Your task to perform on an android device: check android version Image 0: 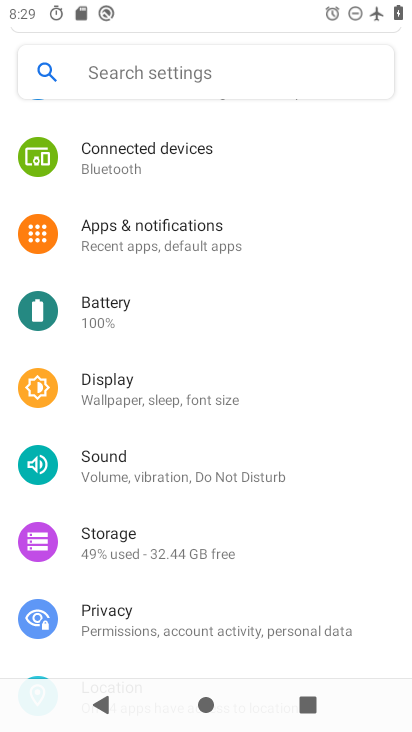
Step 0: press home button
Your task to perform on an android device: check android version Image 1: 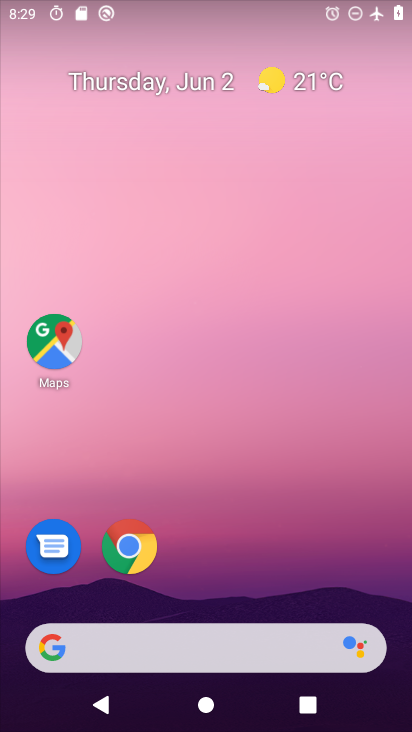
Step 1: drag from (300, 582) to (322, 213)
Your task to perform on an android device: check android version Image 2: 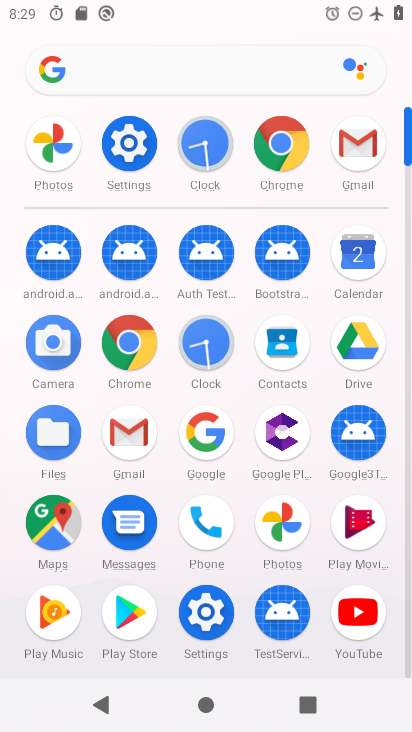
Step 2: click (206, 620)
Your task to perform on an android device: check android version Image 3: 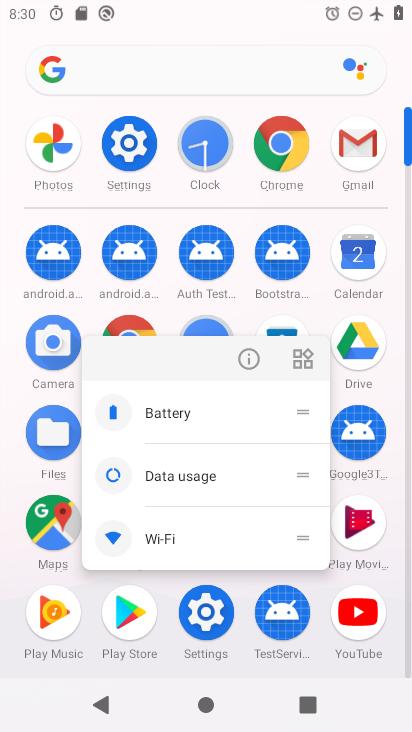
Step 3: click (207, 616)
Your task to perform on an android device: check android version Image 4: 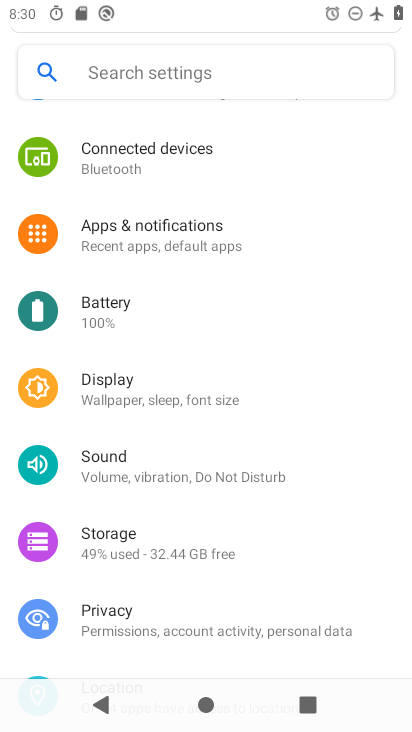
Step 4: drag from (273, 565) to (373, 254)
Your task to perform on an android device: check android version Image 5: 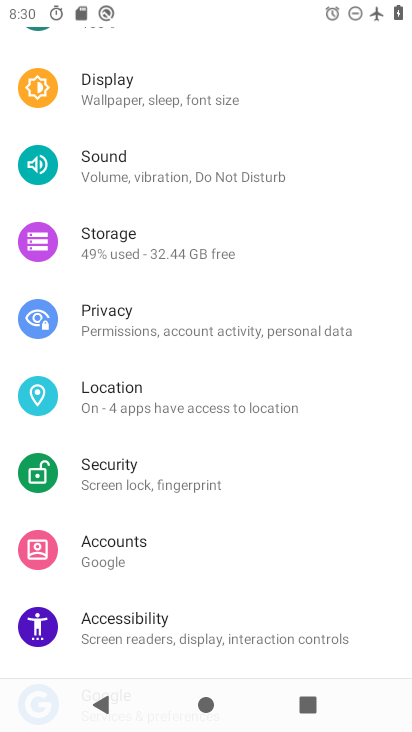
Step 5: drag from (331, 558) to (324, 235)
Your task to perform on an android device: check android version Image 6: 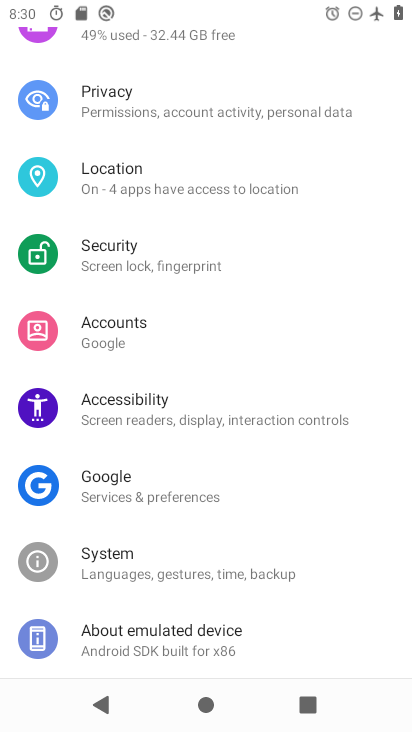
Step 6: drag from (278, 609) to (303, 319)
Your task to perform on an android device: check android version Image 7: 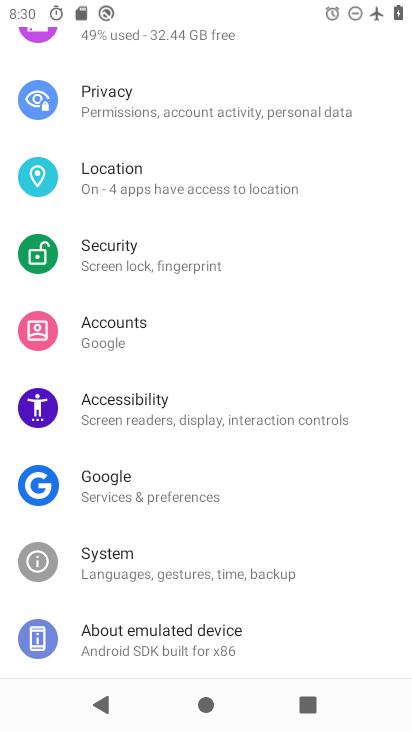
Step 7: click (194, 629)
Your task to perform on an android device: check android version Image 8: 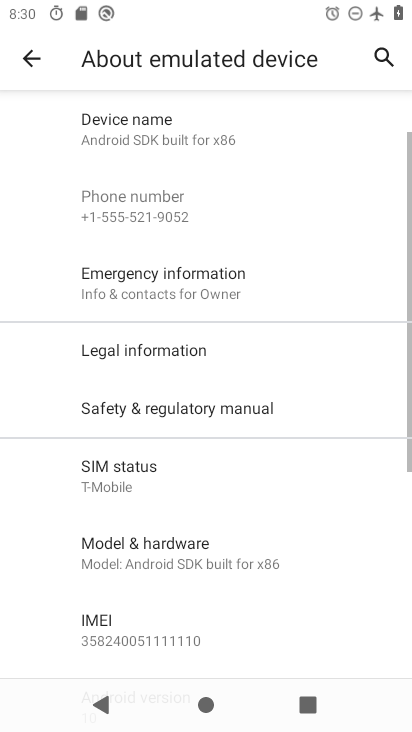
Step 8: drag from (191, 608) to (289, 255)
Your task to perform on an android device: check android version Image 9: 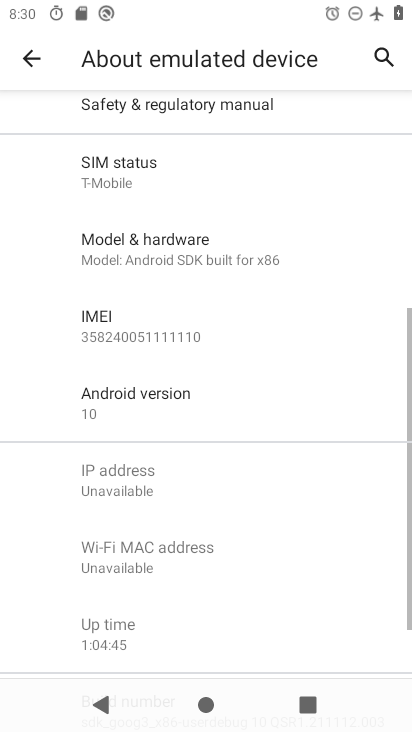
Step 9: drag from (234, 611) to (306, 430)
Your task to perform on an android device: check android version Image 10: 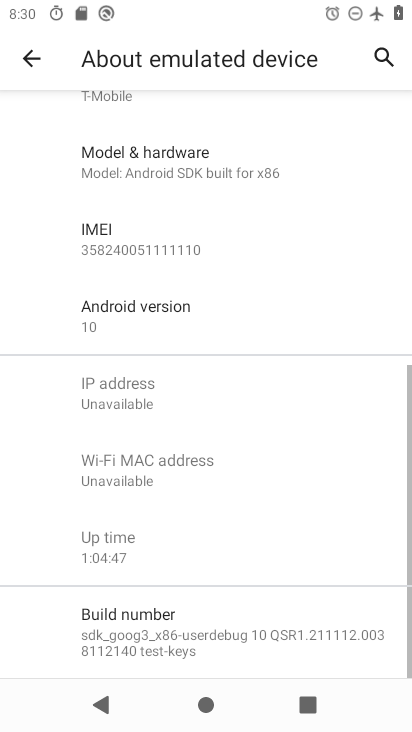
Step 10: click (219, 305)
Your task to perform on an android device: check android version Image 11: 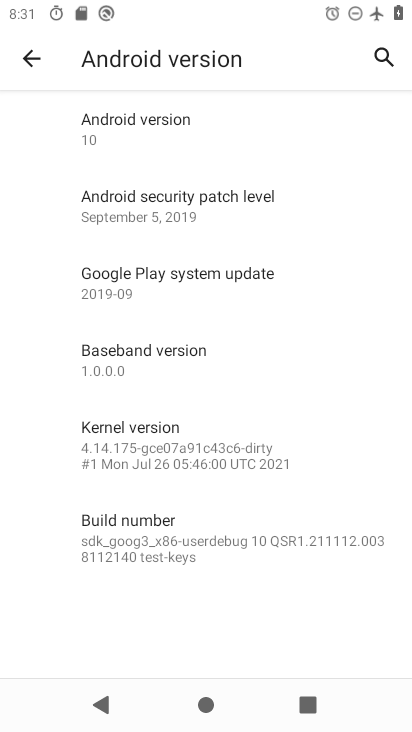
Step 11: task complete